Your task to perform on an android device: View the shopping cart on newegg.com. Add usb-a to the cart on newegg.com Image 0: 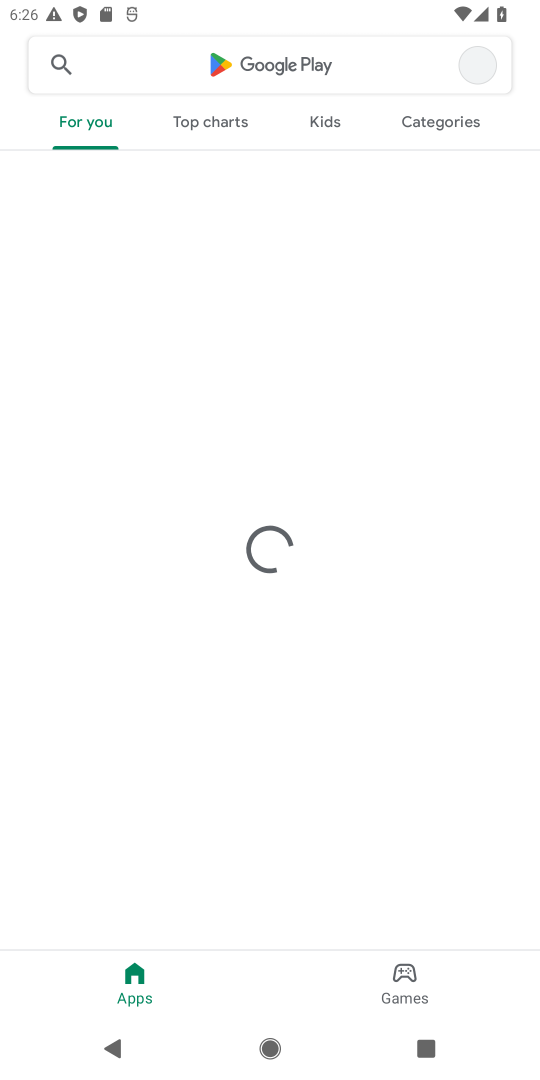
Step 0: press home button
Your task to perform on an android device: View the shopping cart on newegg.com. Add usb-a to the cart on newegg.com Image 1: 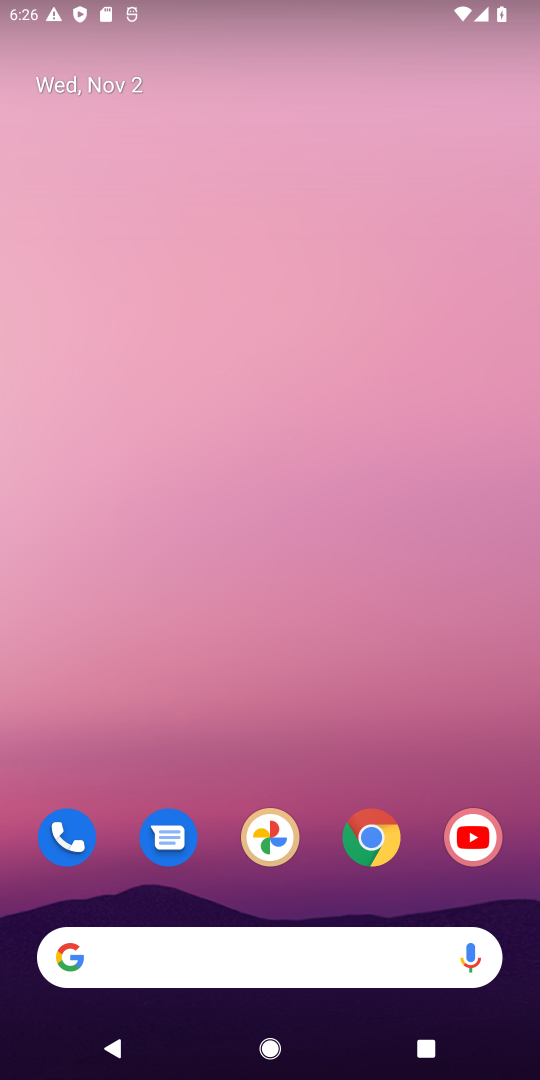
Step 1: click (367, 850)
Your task to perform on an android device: View the shopping cart on newegg.com. Add usb-a to the cart on newegg.com Image 2: 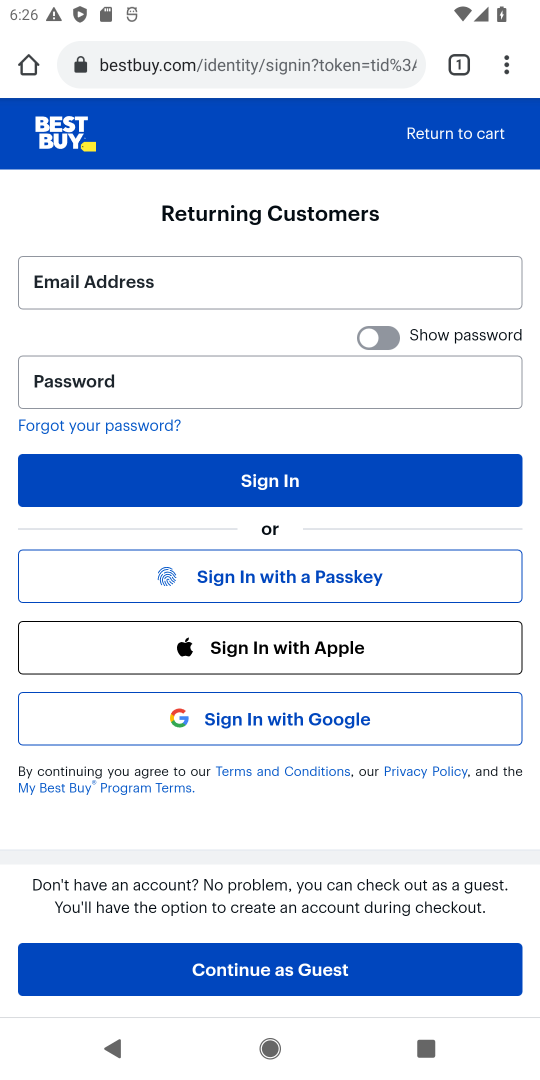
Step 2: click (204, 62)
Your task to perform on an android device: View the shopping cart on newegg.com. Add usb-a to the cart on newegg.com Image 3: 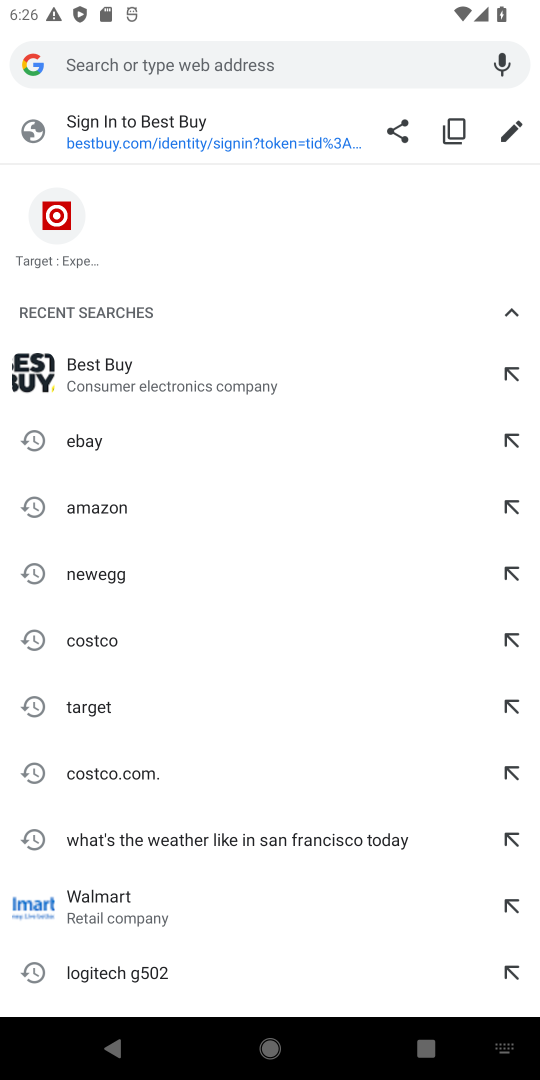
Step 3: type "newegg"
Your task to perform on an android device: View the shopping cart on newegg.com. Add usb-a to the cart on newegg.com Image 4: 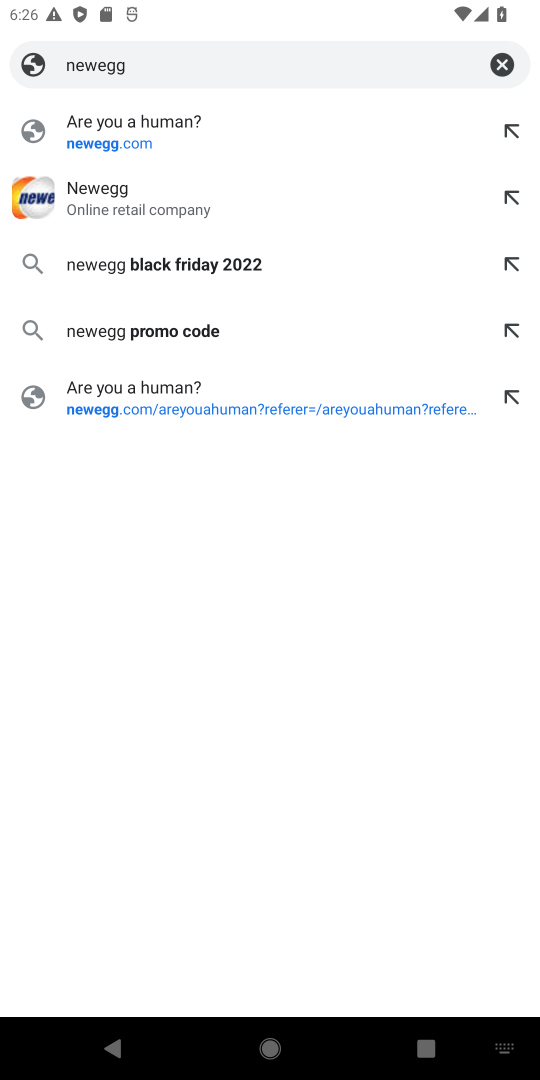
Step 4: click (94, 222)
Your task to perform on an android device: View the shopping cart on newegg.com. Add usb-a to the cart on newegg.com Image 5: 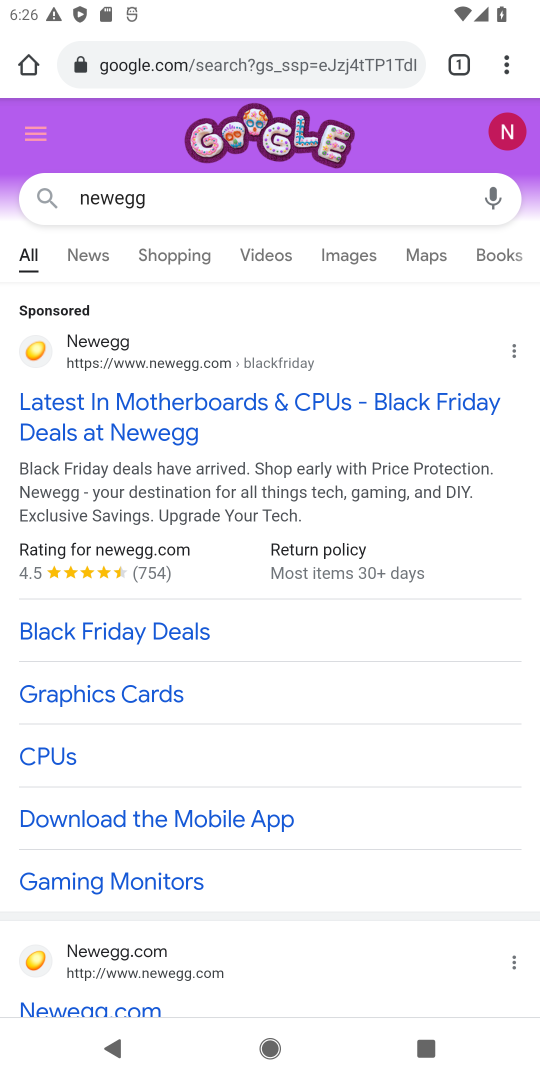
Step 5: drag from (150, 834) to (144, 301)
Your task to perform on an android device: View the shopping cart on newegg.com. Add usb-a to the cart on newegg.com Image 6: 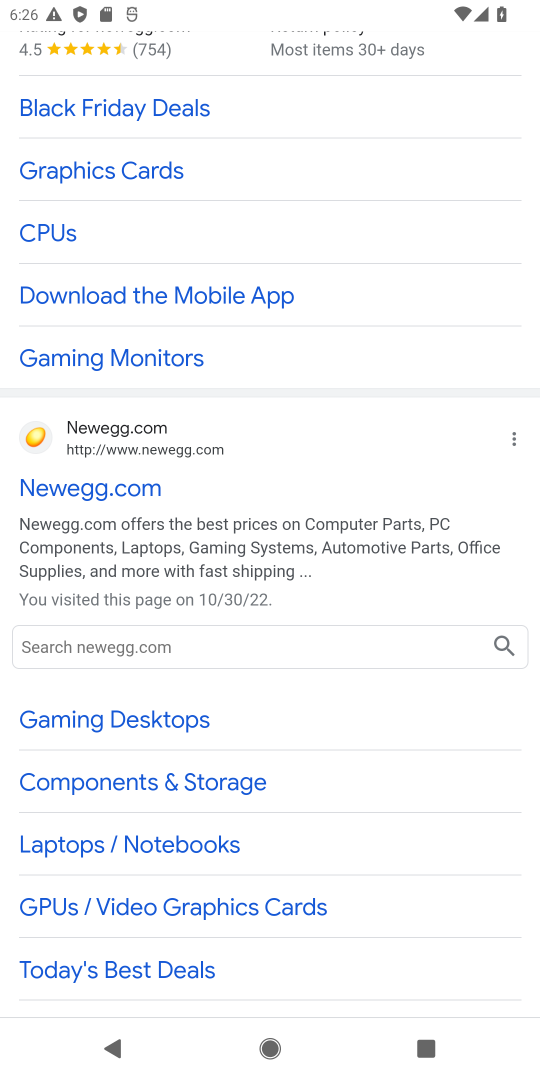
Step 6: click (46, 489)
Your task to perform on an android device: View the shopping cart on newegg.com. Add usb-a to the cart on newegg.com Image 7: 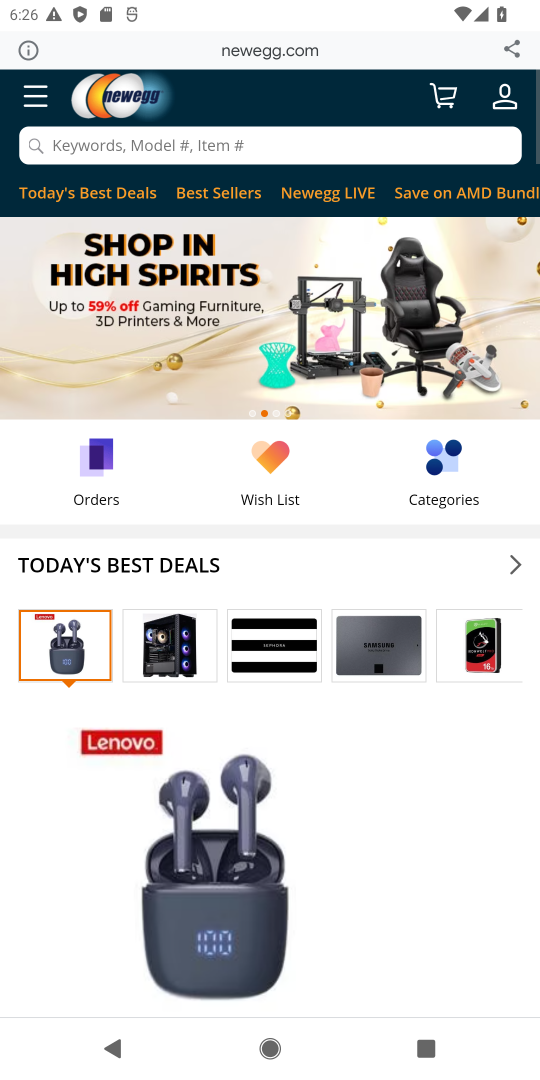
Step 7: click (126, 151)
Your task to perform on an android device: View the shopping cart on newegg.com. Add usb-a to the cart on newegg.com Image 8: 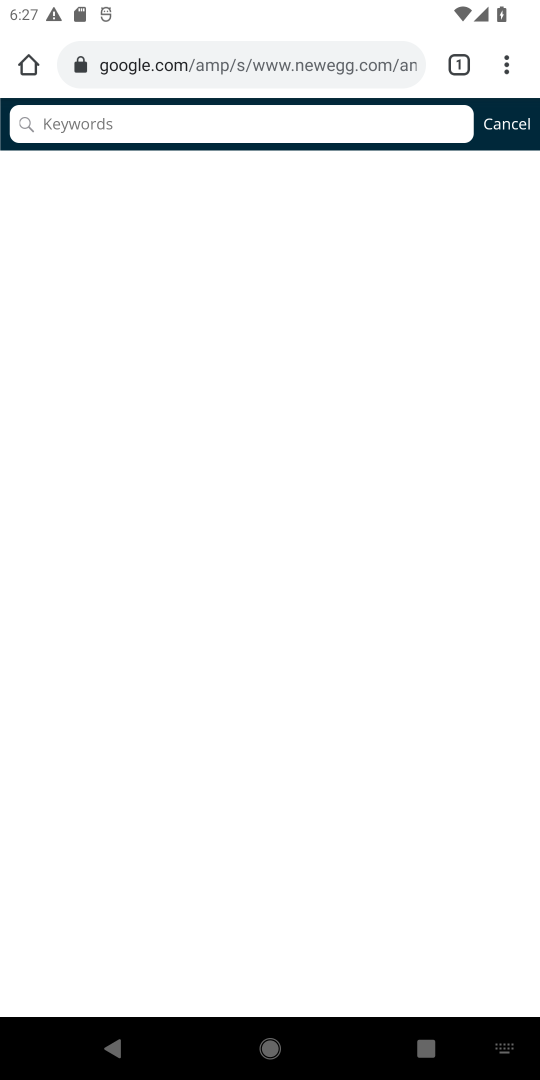
Step 8: type "usb -a "
Your task to perform on an android device: View the shopping cart on newegg.com. Add usb-a to the cart on newegg.com Image 9: 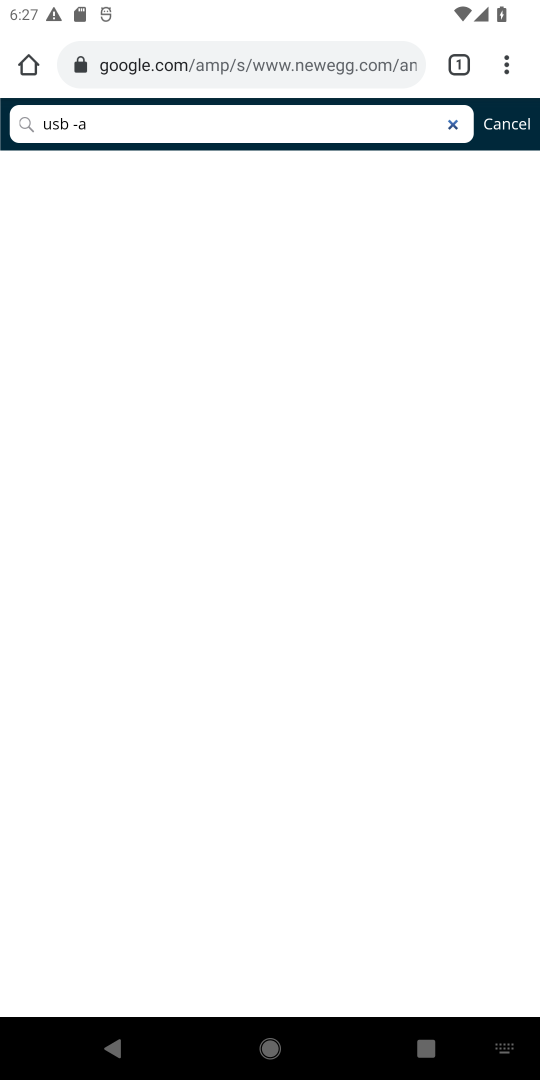
Step 9: click (136, 142)
Your task to perform on an android device: View the shopping cart on newegg.com. Add usb-a to the cart on newegg.com Image 10: 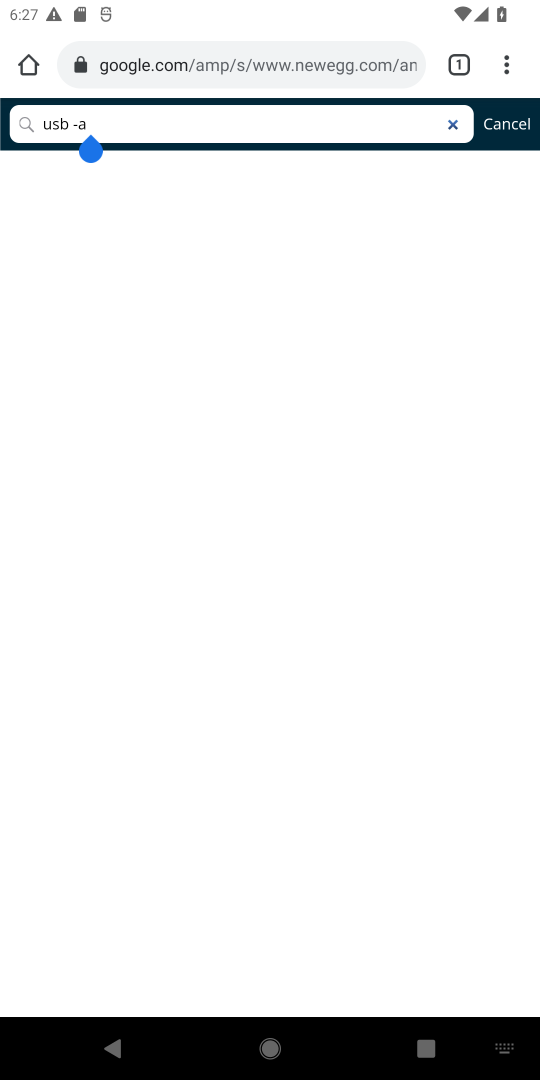
Step 10: click (126, 118)
Your task to perform on an android device: View the shopping cart on newegg.com. Add usb-a to the cart on newegg.com Image 11: 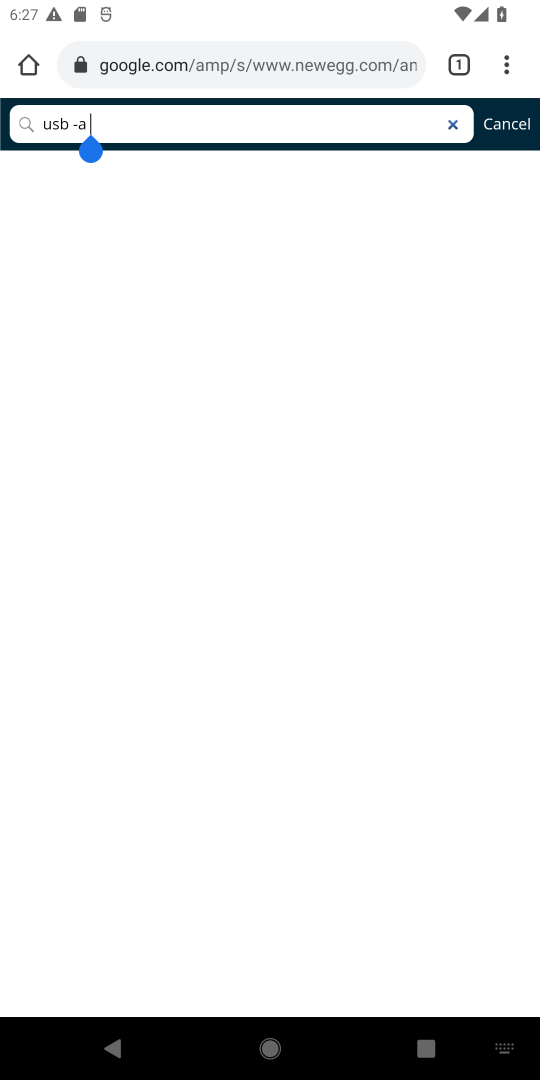
Step 11: click (26, 131)
Your task to perform on an android device: View the shopping cart on newegg.com. Add usb-a to the cart on newegg.com Image 12: 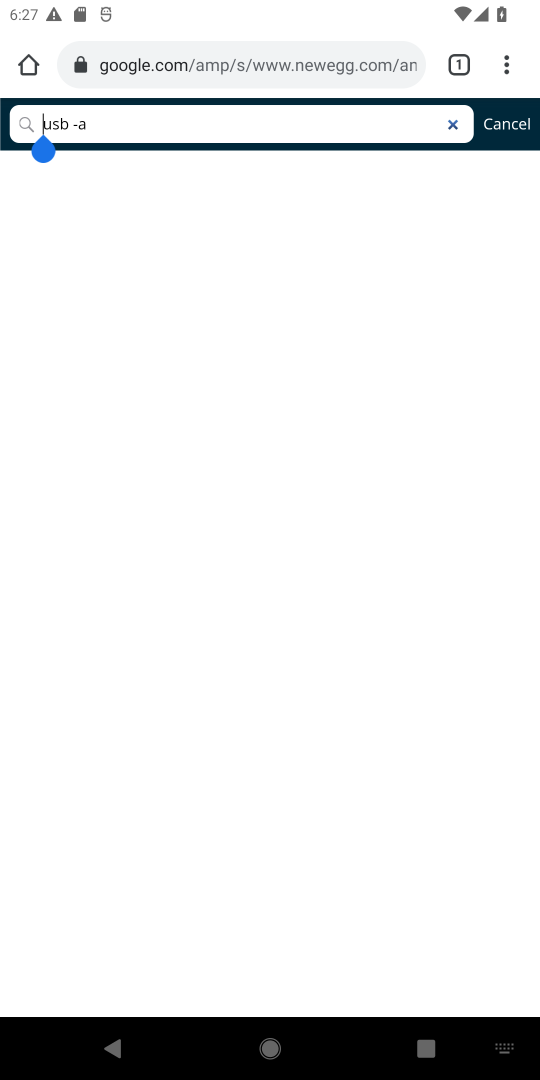
Step 12: click (98, 126)
Your task to perform on an android device: View the shopping cart on newegg.com. Add usb-a to the cart on newegg.com Image 13: 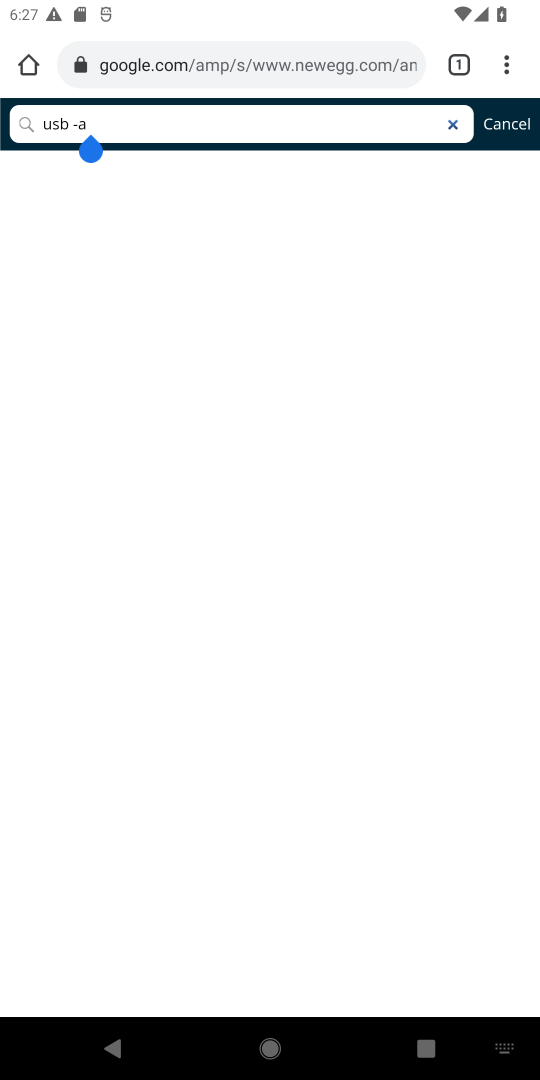
Step 13: type ""
Your task to perform on an android device: View the shopping cart on newegg.com. Add usb-a to the cart on newegg.com Image 14: 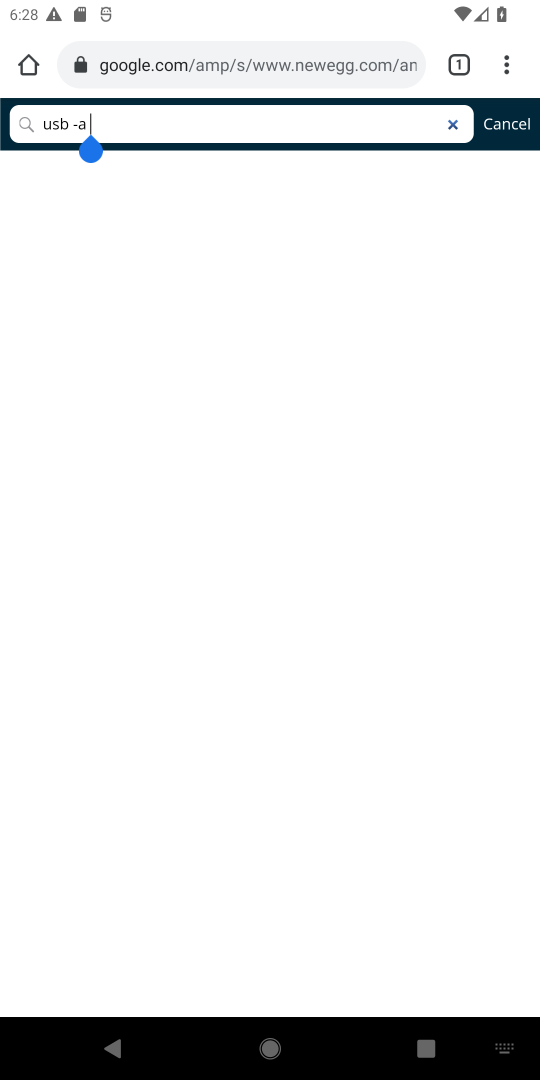
Step 14: task complete